Your task to perform on an android device: Open CNN.com Image 0: 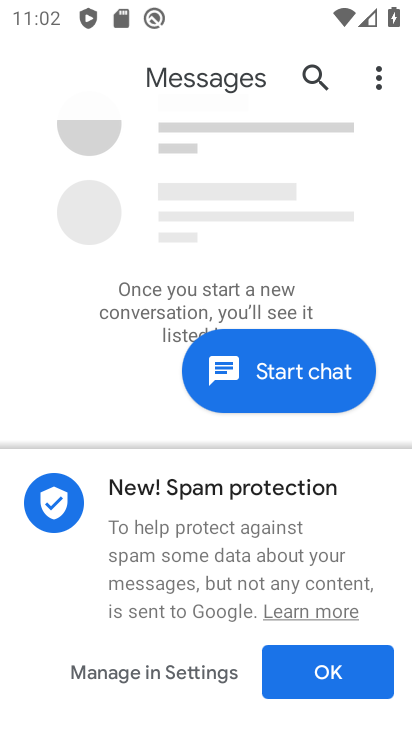
Step 0: press home button
Your task to perform on an android device: Open CNN.com Image 1: 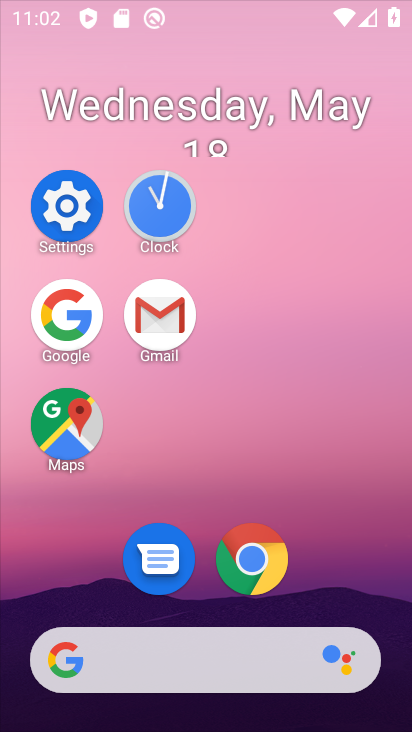
Step 1: click (234, 577)
Your task to perform on an android device: Open CNN.com Image 2: 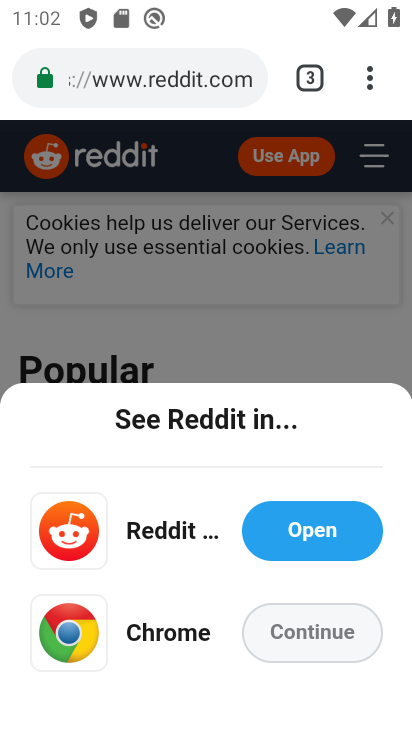
Step 2: click (320, 79)
Your task to perform on an android device: Open CNN.com Image 3: 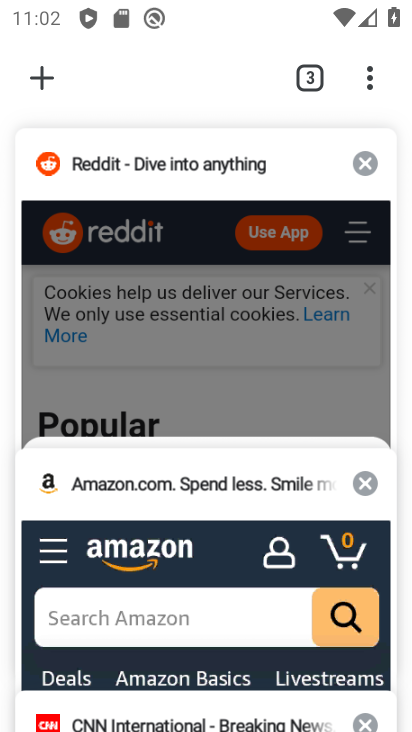
Step 3: click (196, 713)
Your task to perform on an android device: Open CNN.com Image 4: 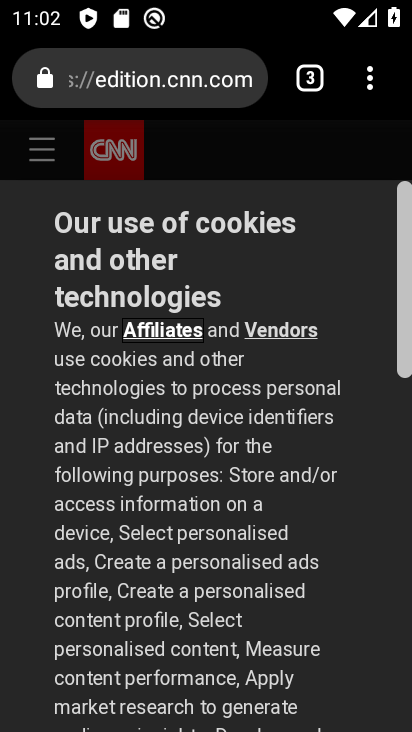
Step 4: task complete